Your task to perform on an android device: Search for logitech g910 on amazon.com, select the first entry, add it to the cart, then select checkout. Image 0: 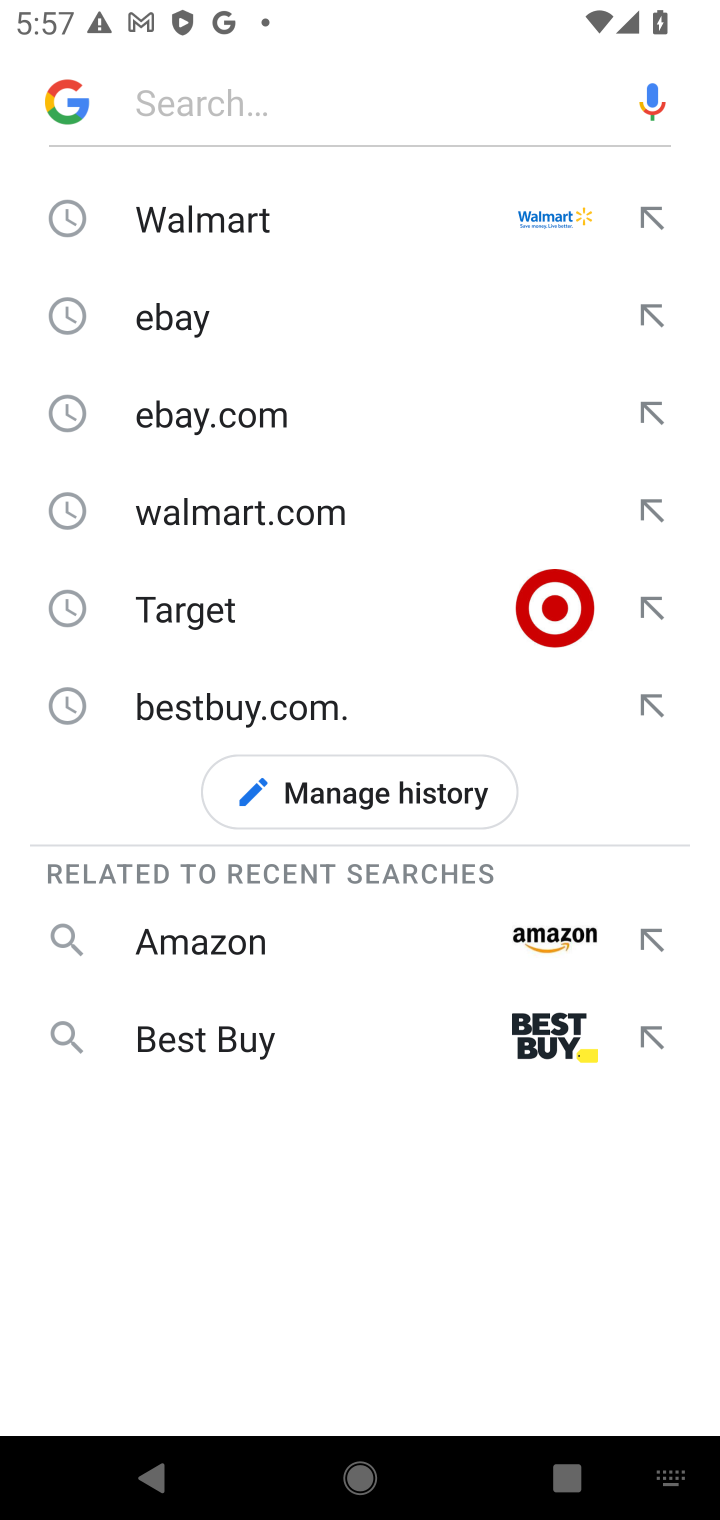
Step 0: press home button
Your task to perform on an android device: Search for logitech g910 on amazon.com, select the first entry, add it to the cart, then select checkout. Image 1: 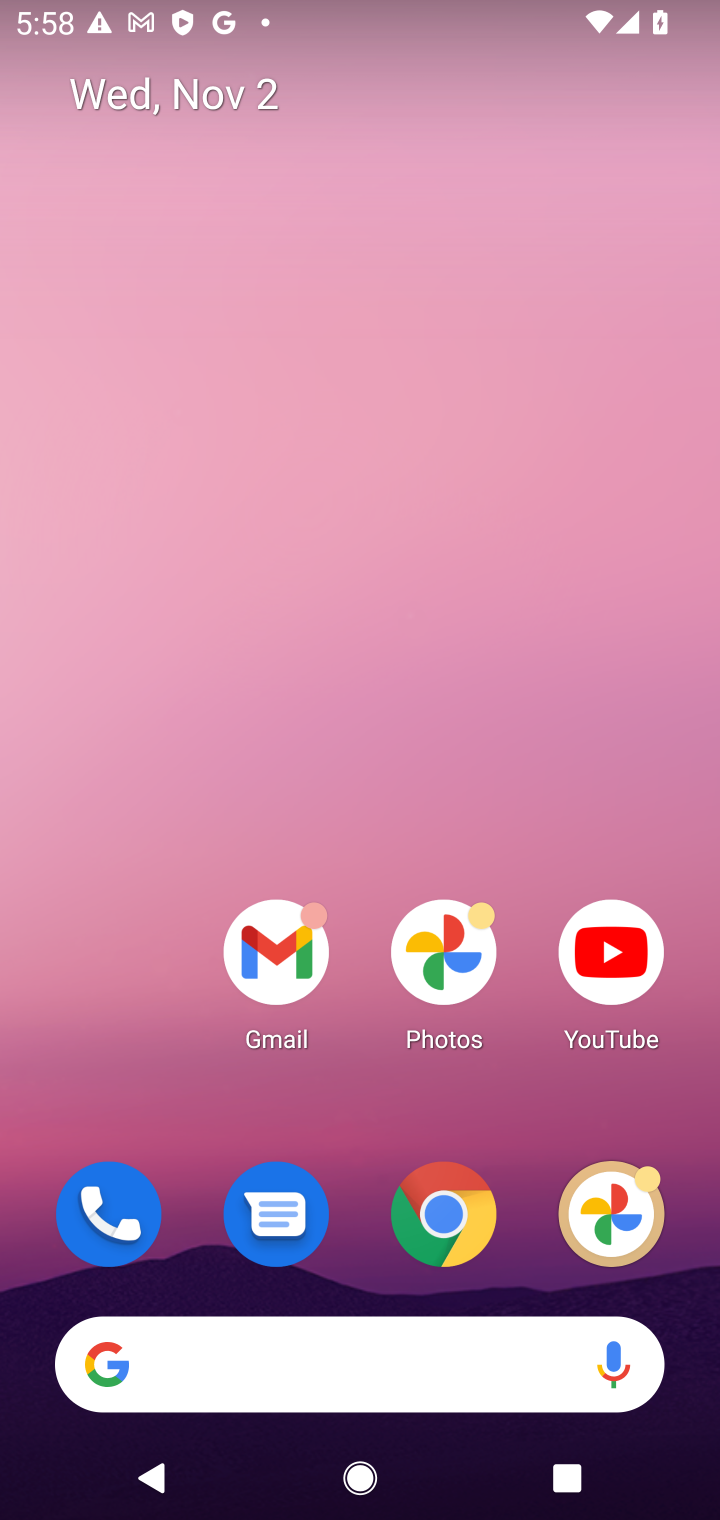
Step 1: click (446, 1213)
Your task to perform on an android device: Search for logitech g910 on amazon.com, select the first entry, add it to the cart, then select checkout. Image 2: 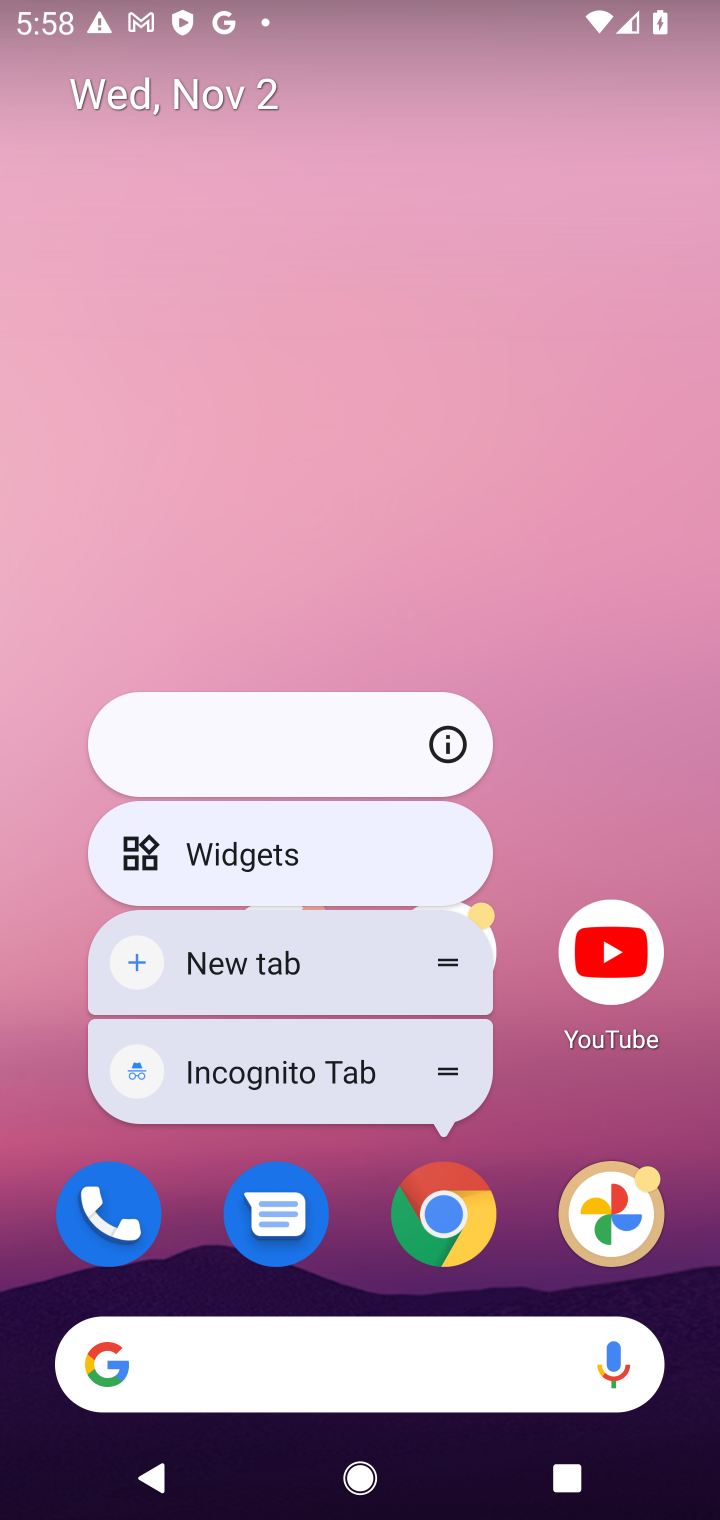
Step 2: click (444, 1219)
Your task to perform on an android device: Search for logitech g910 on amazon.com, select the first entry, add it to the cart, then select checkout. Image 3: 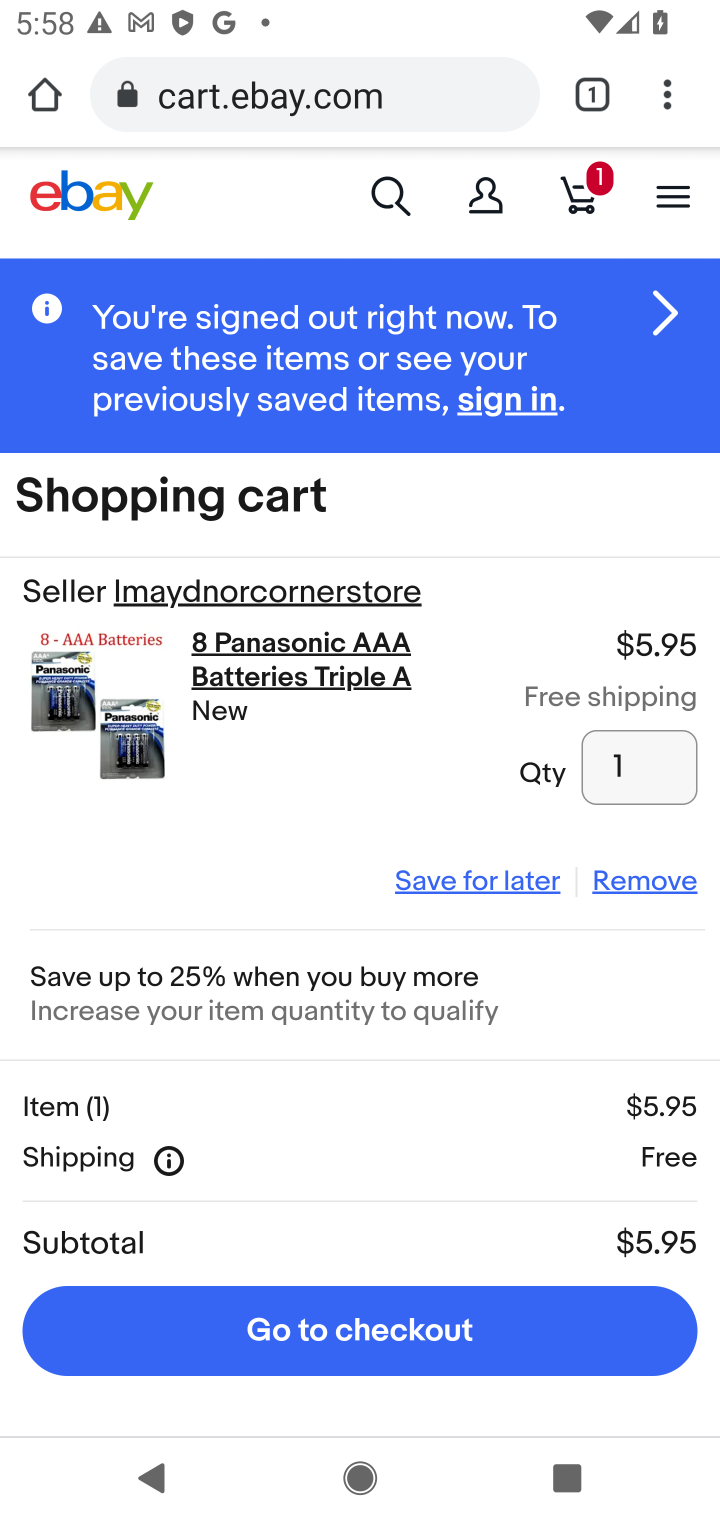
Step 3: click (443, 94)
Your task to perform on an android device: Search for logitech g910 on amazon.com, select the first entry, add it to the cart, then select checkout. Image 4: 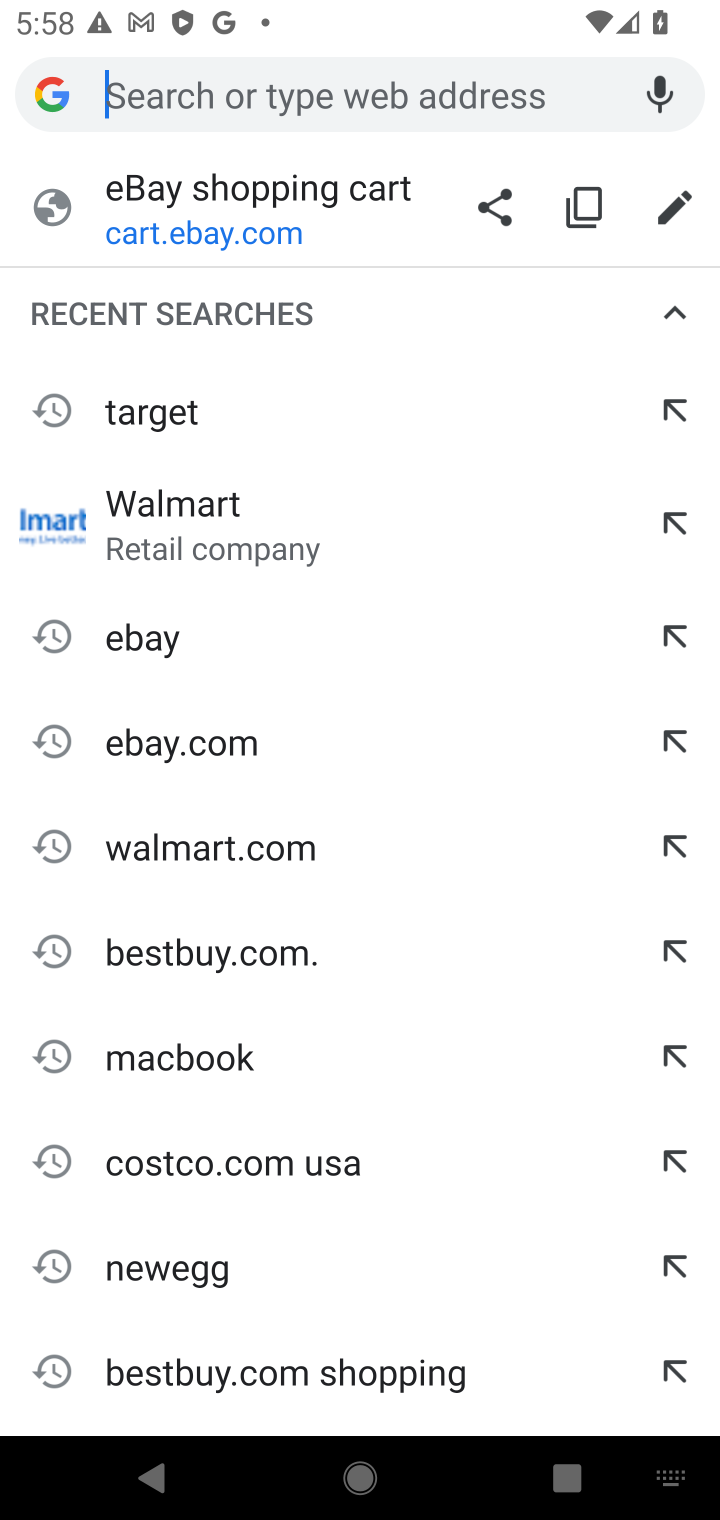
Step 4: type "amazon.com"
Your task to perform on an android device: Search for logitech g910 on amazon.com, select the first entry, add it to the cart, then select checkout. Image 5: 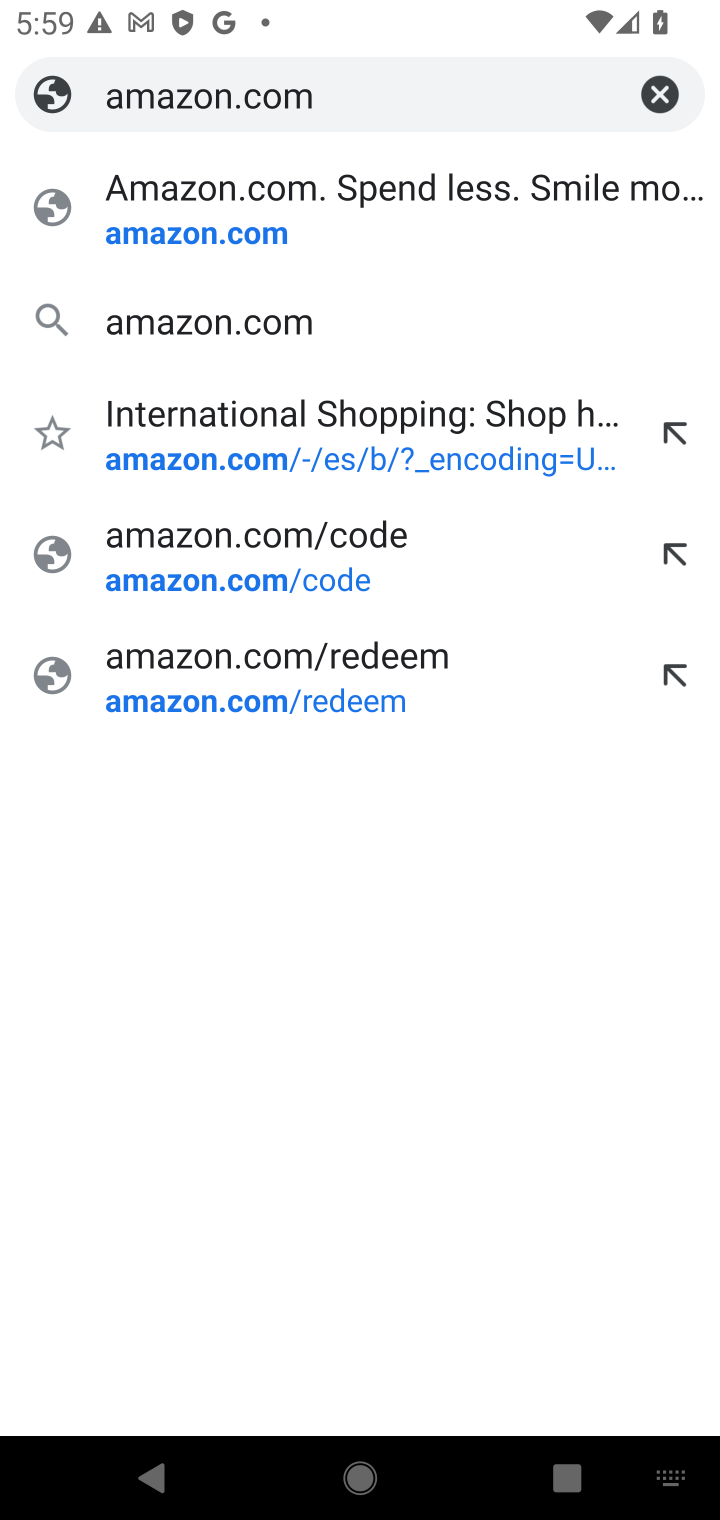
Step 5: click (224, 244)
Your task to perform on an android device: Search for logitech g910 on amazon.com, select the first entry, add it to the cart, then select checkout. Image 6: 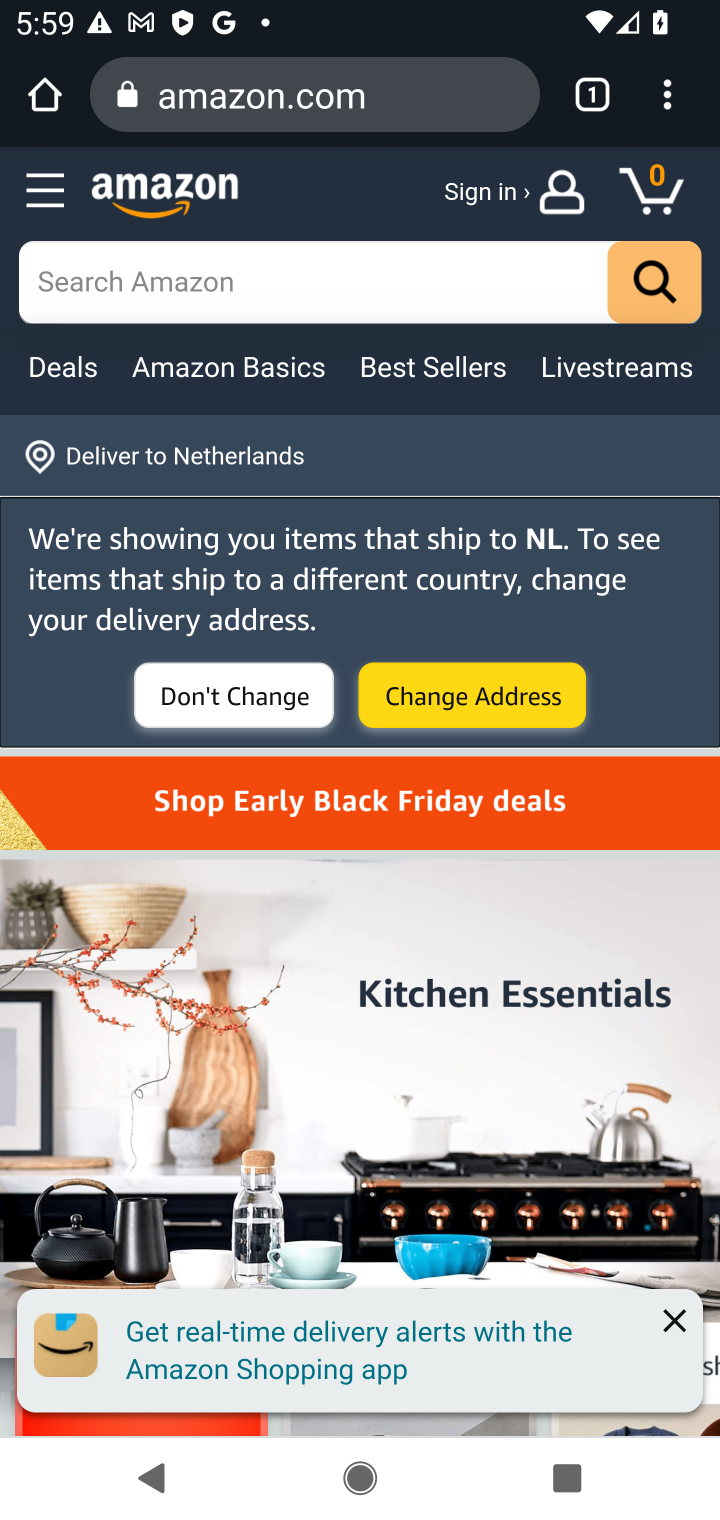
Step 6: click (212, 281)
Your task to perform on an android device: Search for logitech g910 on amazon.com, select the first entry, add it to the cart, then select checkout. Image 7: 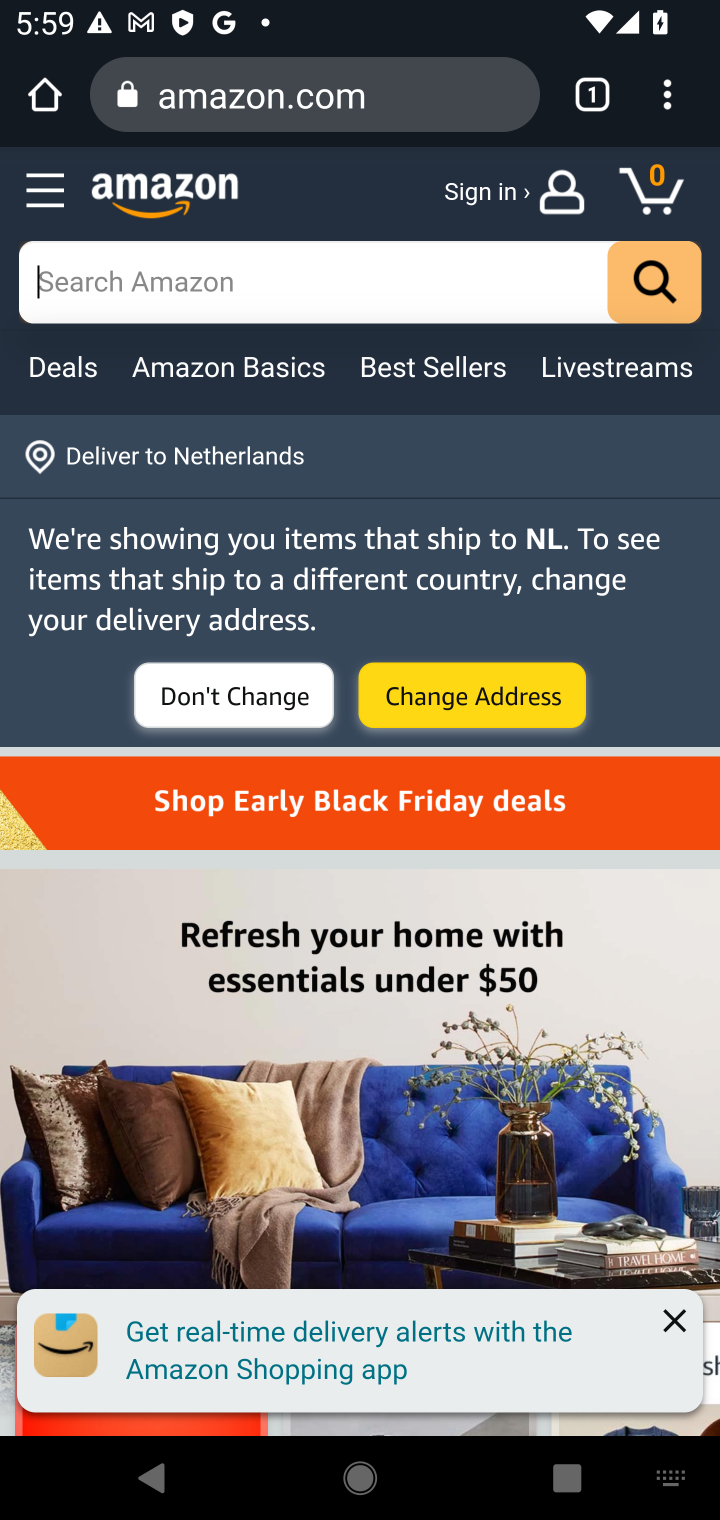
Step 7: type "logitech g910"
Your task to perform on an android device: Search for logitech g910 on amazon.com, select the first entry, add it to the cart, then select checkout. Image 8: 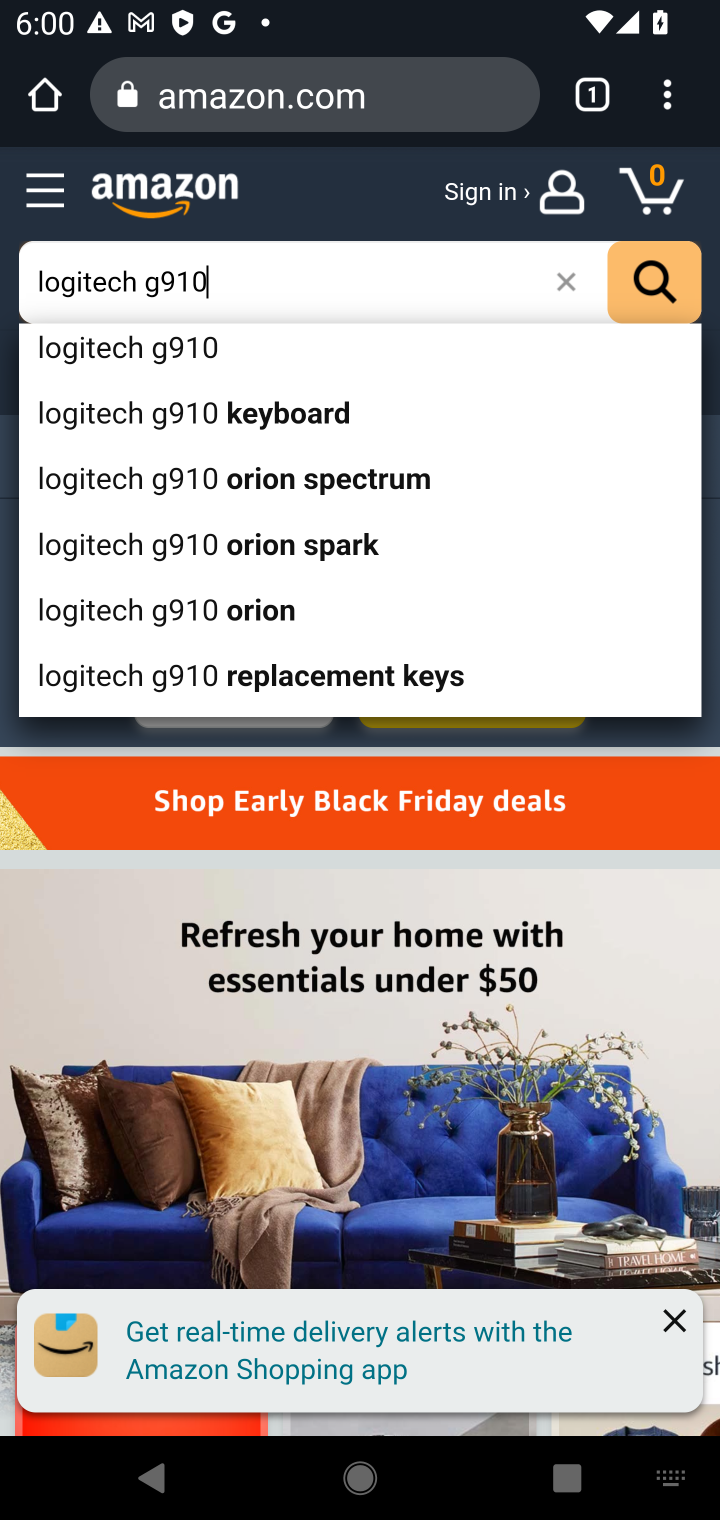
Step 8: click (652, 279)
Your task to perform on an android device: Search for logitech g910 on amazon.com, select the first entry, add it to the cart, then select checkout. Image 9: 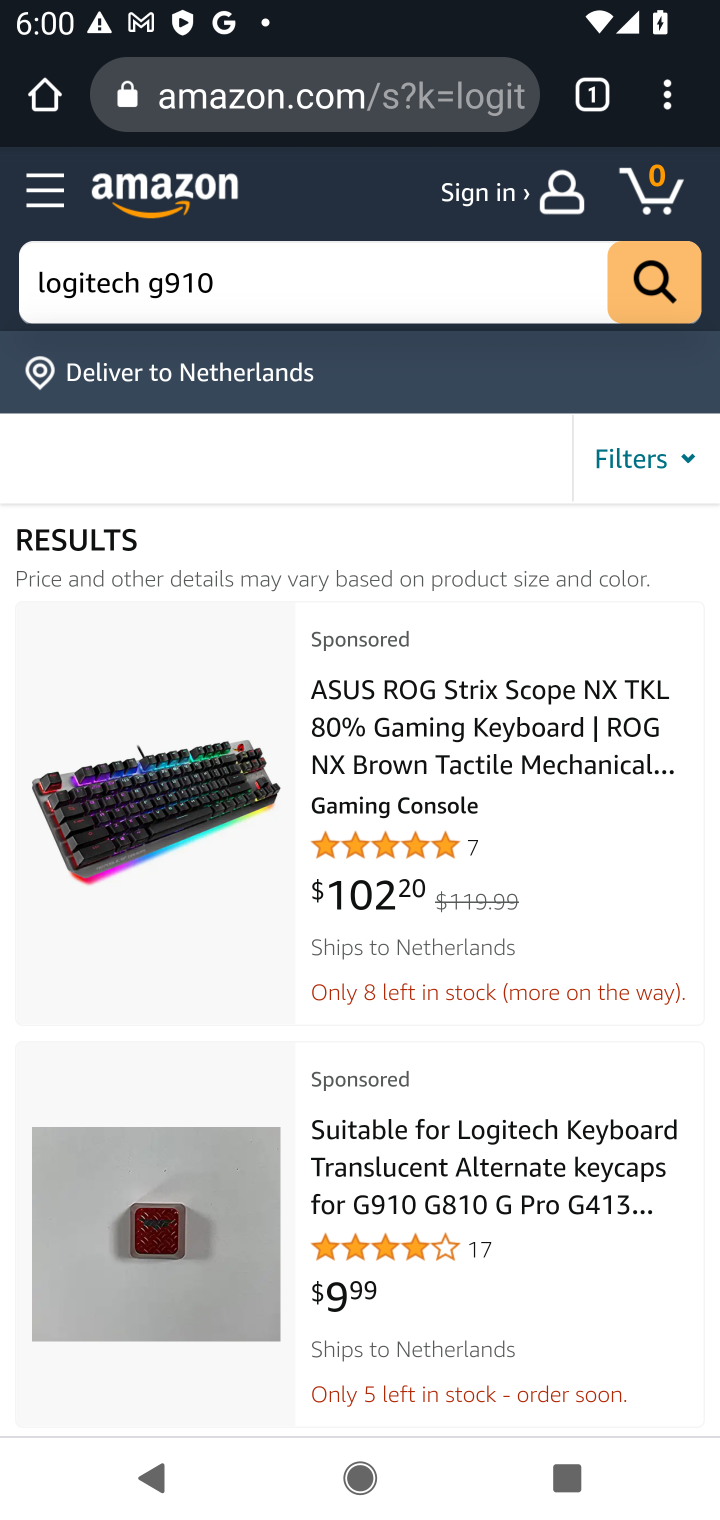
Step 9: click (667, 290)
Your task to perform on an android device: Search for logitech g910 on amazon.com, select the first entry, add it to the cart, then select checkout. Image 10: 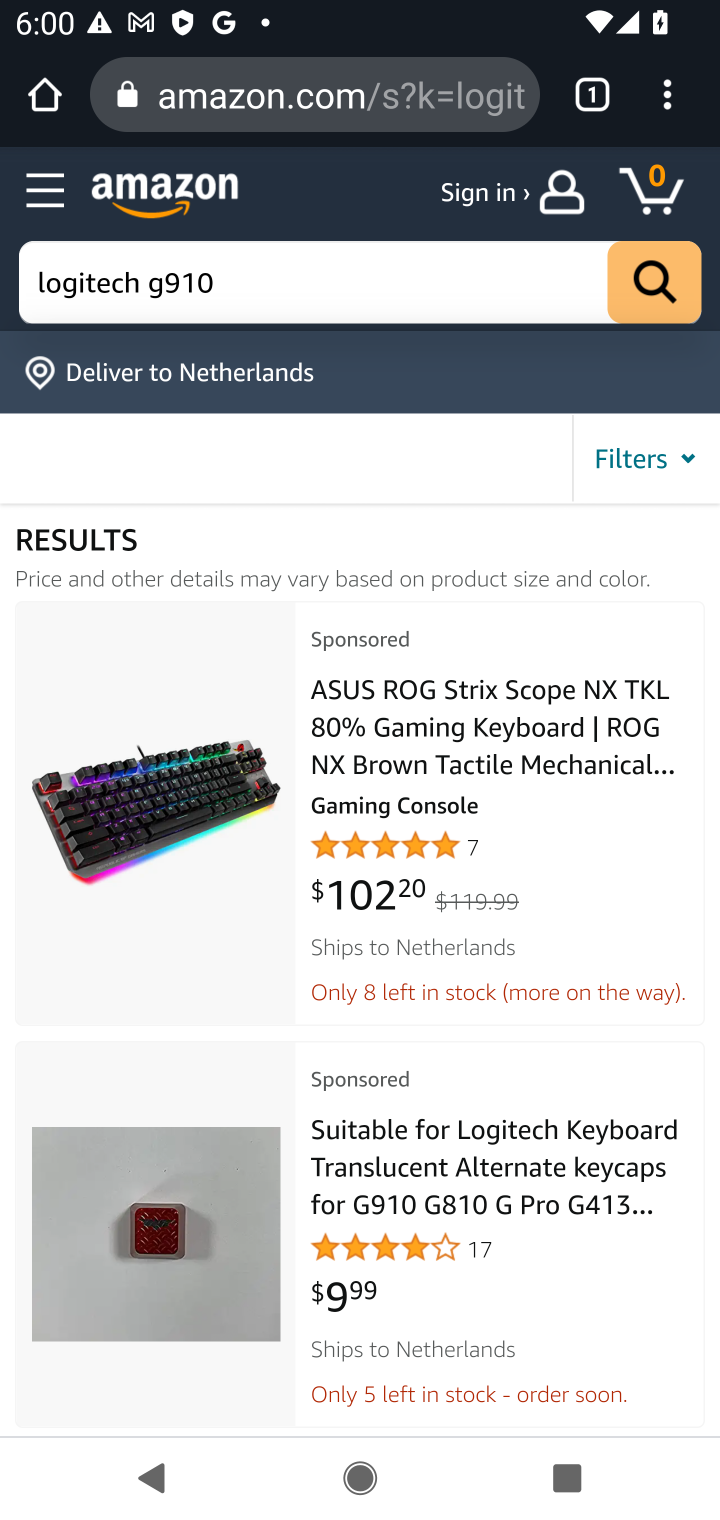
Step 10: drag from (501, 1224) to (521, 641)
Your task to perform on an android device: Search for logitech g910 on amazon.com, select the first entry, add it to the cart, then select checkout. Image 11: 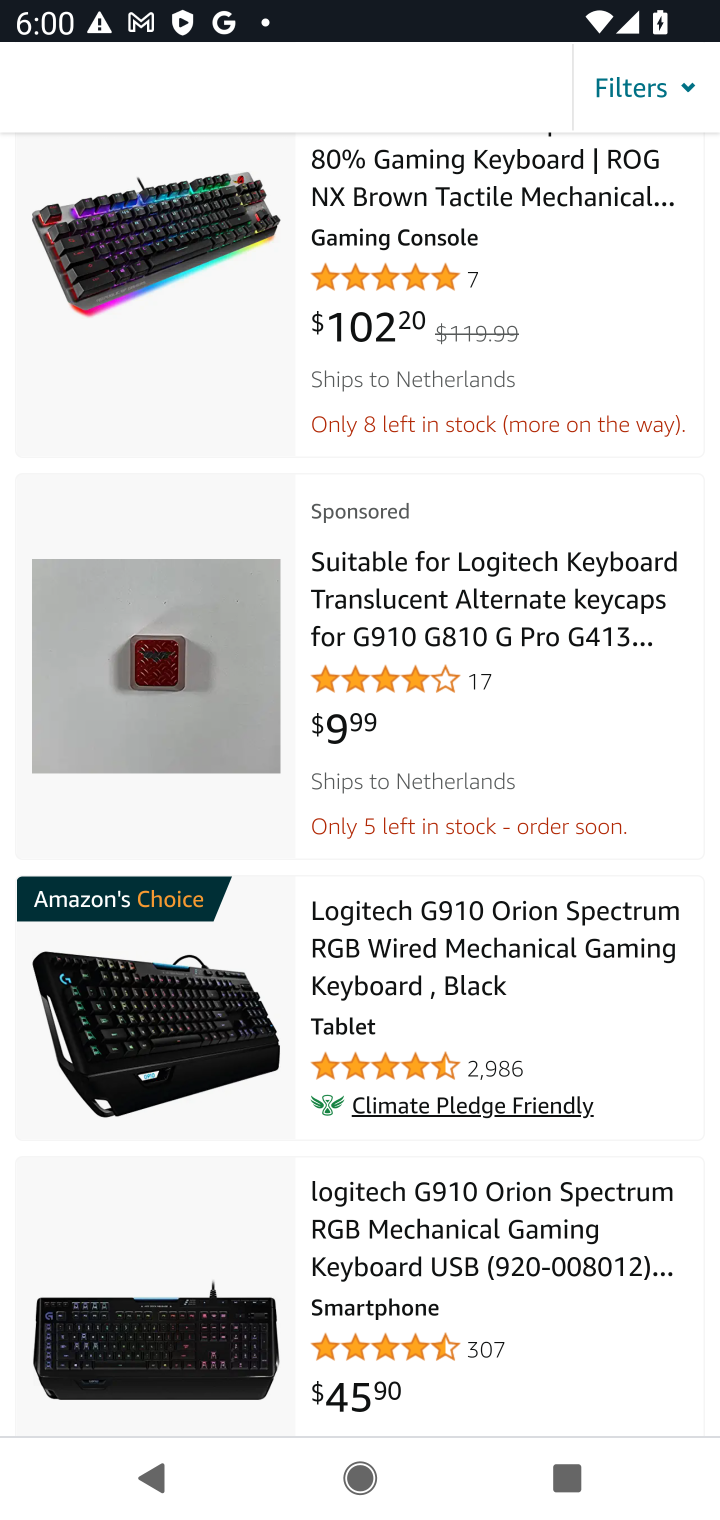
Step 11: click (497, 930)
Your task to perform on an android device: Search for logitech g910 on amazon.com, select the first entry, add it to the cart, then select checkout. Image 12: 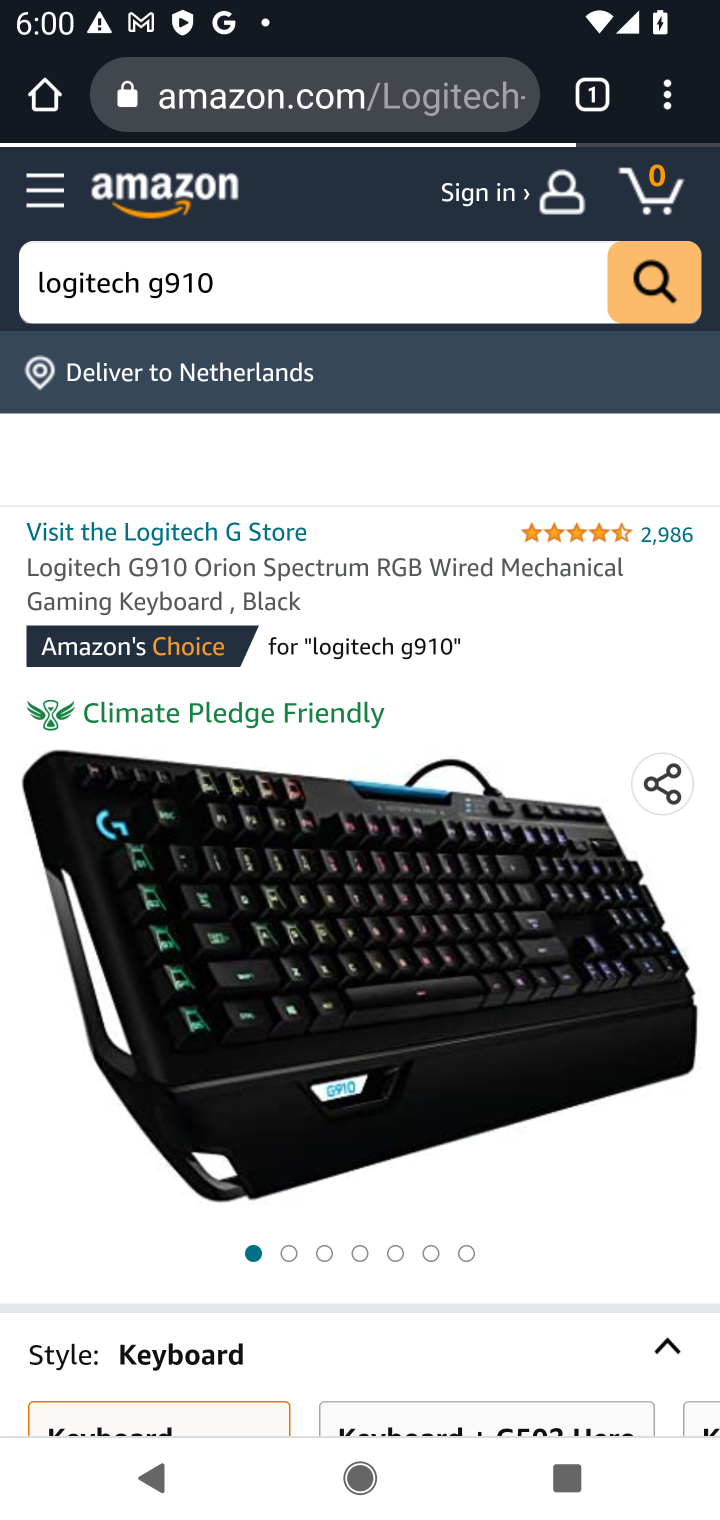
Step 12: drag from (477, 989) to (502, 662)
Your task to perform on an android device: Search for logitech g910 on amazon.com, select the first entry, add it to the cart, then select checkout. Image 13: 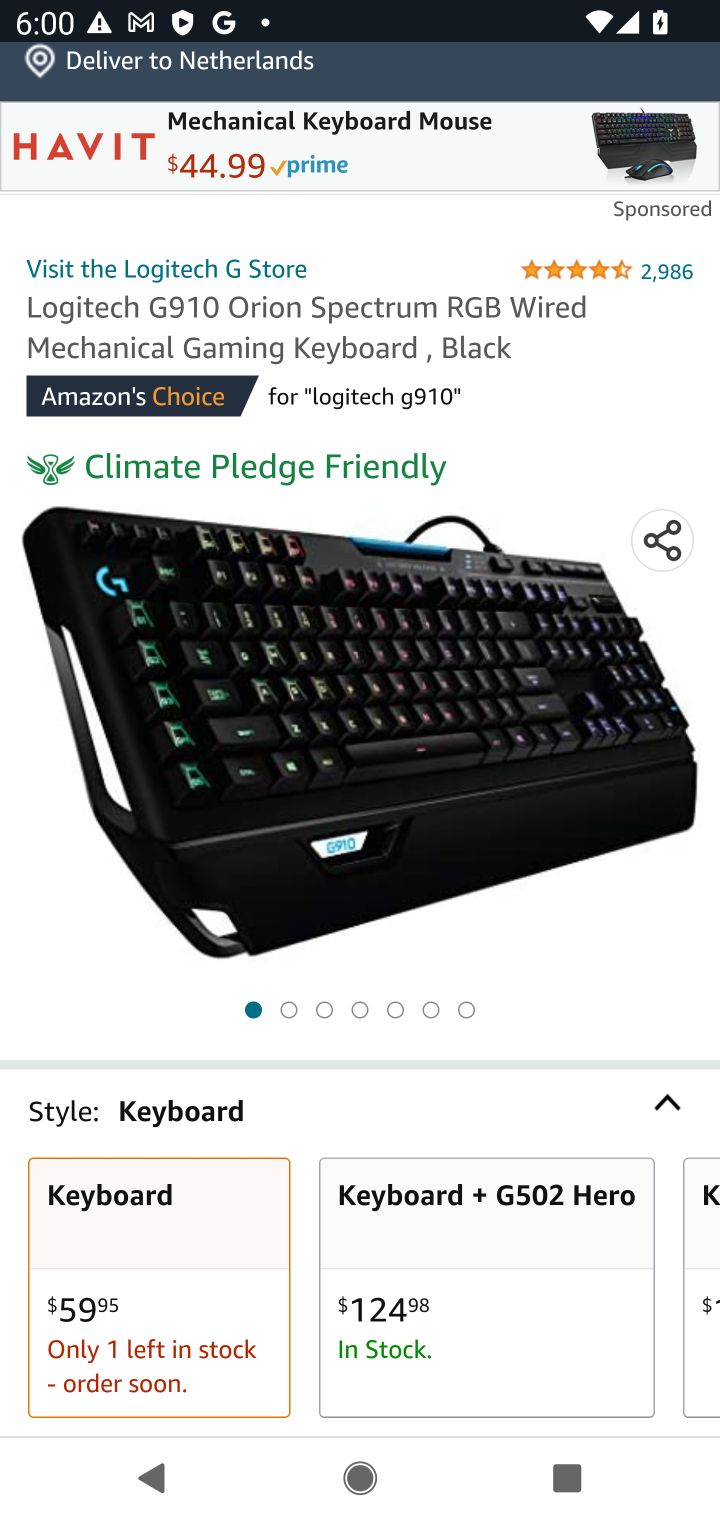
Step 13: drag from (535, 994) to (546, 474)
Your task to perform on an android device: Search for logitech g910 on amazon.com, select the first entry, add it to the cart, then select checkout. Image 14: 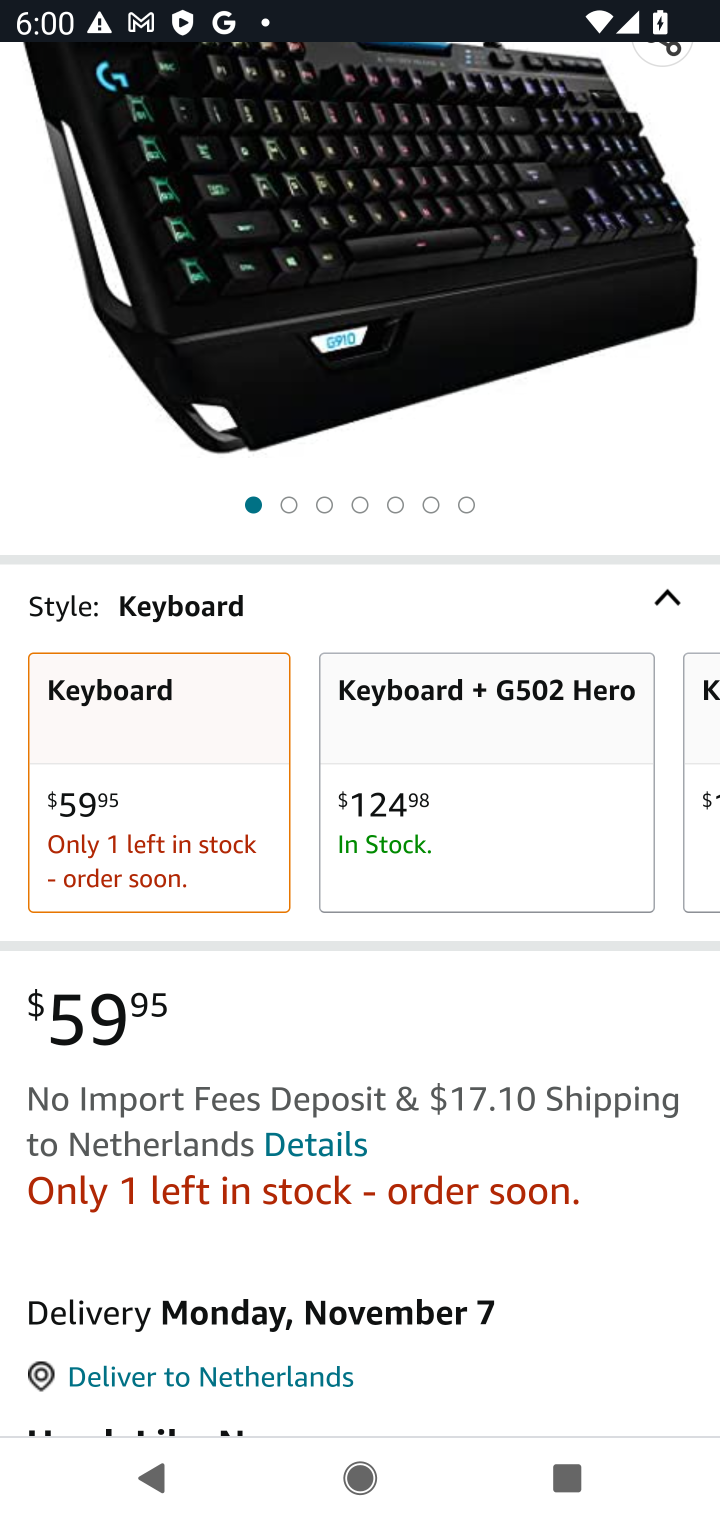
Step 14: drag from (366, 1233) to (471, 513)
Your task to perform on an android device: Search for logitech g910 on amazon.com, select the first entry, add it to the cart, then select checkout. Image 15: 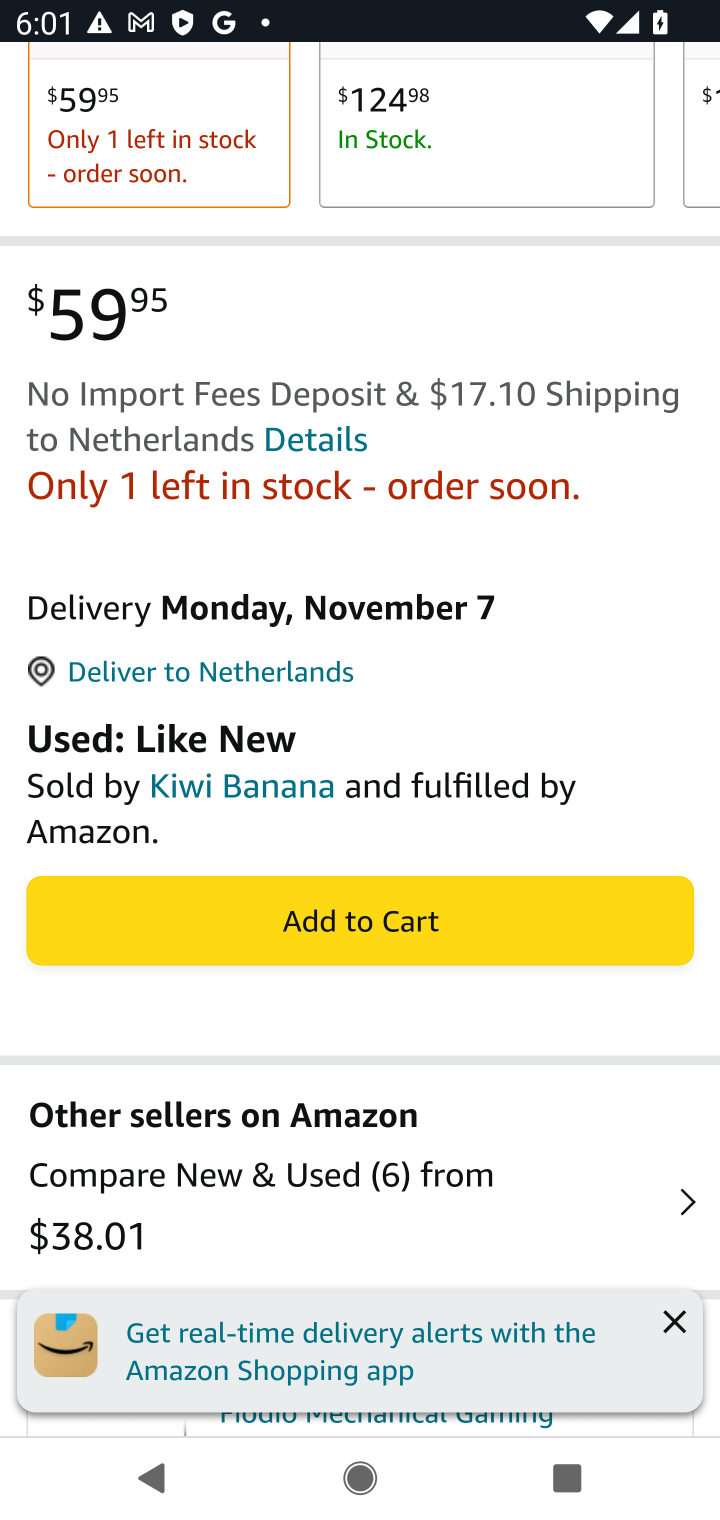
Step 15: click (358, 928)
Your task to perform on an android device: Search for logitech g910 on amazon.com, select the first entry, add it to the cart, then select checkout. Image 16: 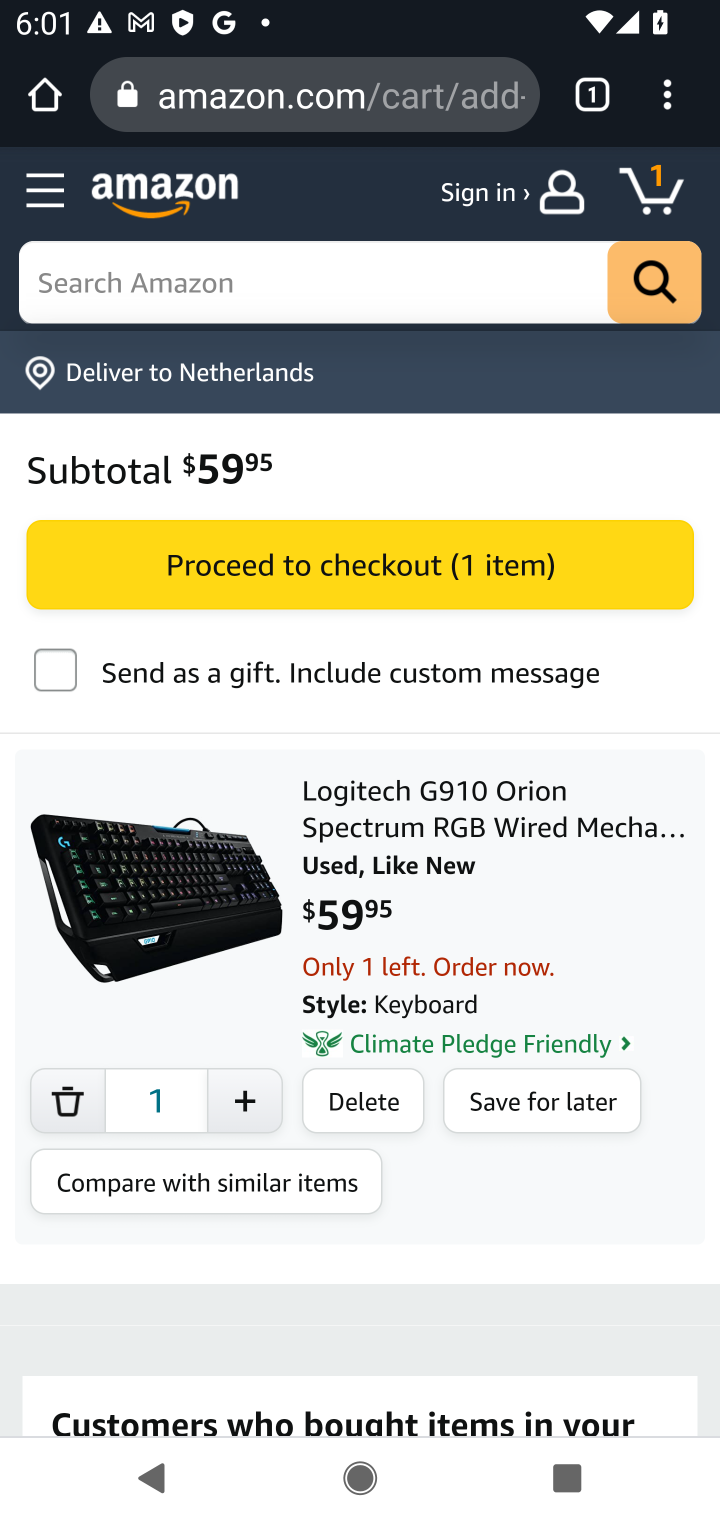
Step 16: click (655, 187)
Your task to perform on an android device: Search for logitech g910 on amazon.com, select the first entry, add it to the cart, then select checkout. Image 17: 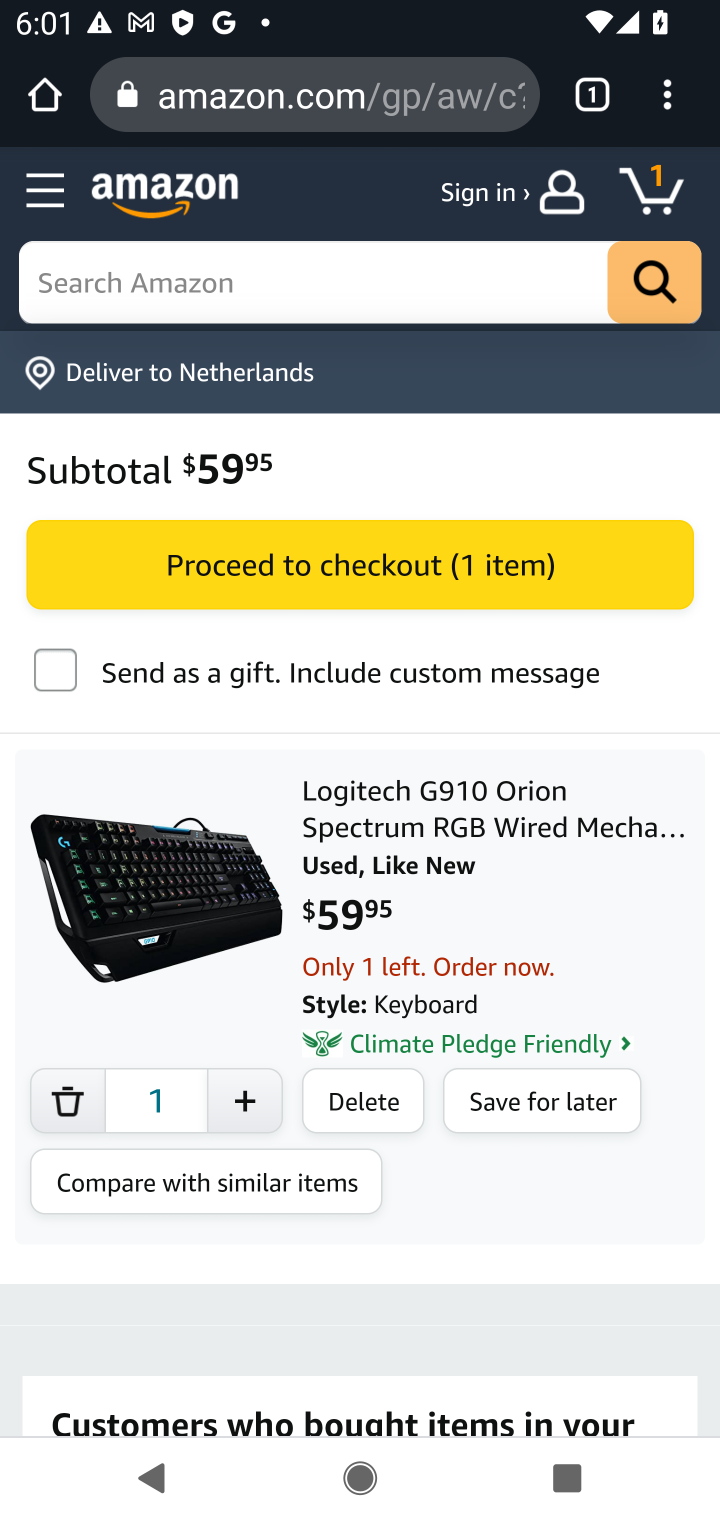
Step 17: click (383, 554)
Your task to perform on an android device: Search for logitech g910 on amazon.com, select the first entry, add it to the cart, then select checkout. Image 18: 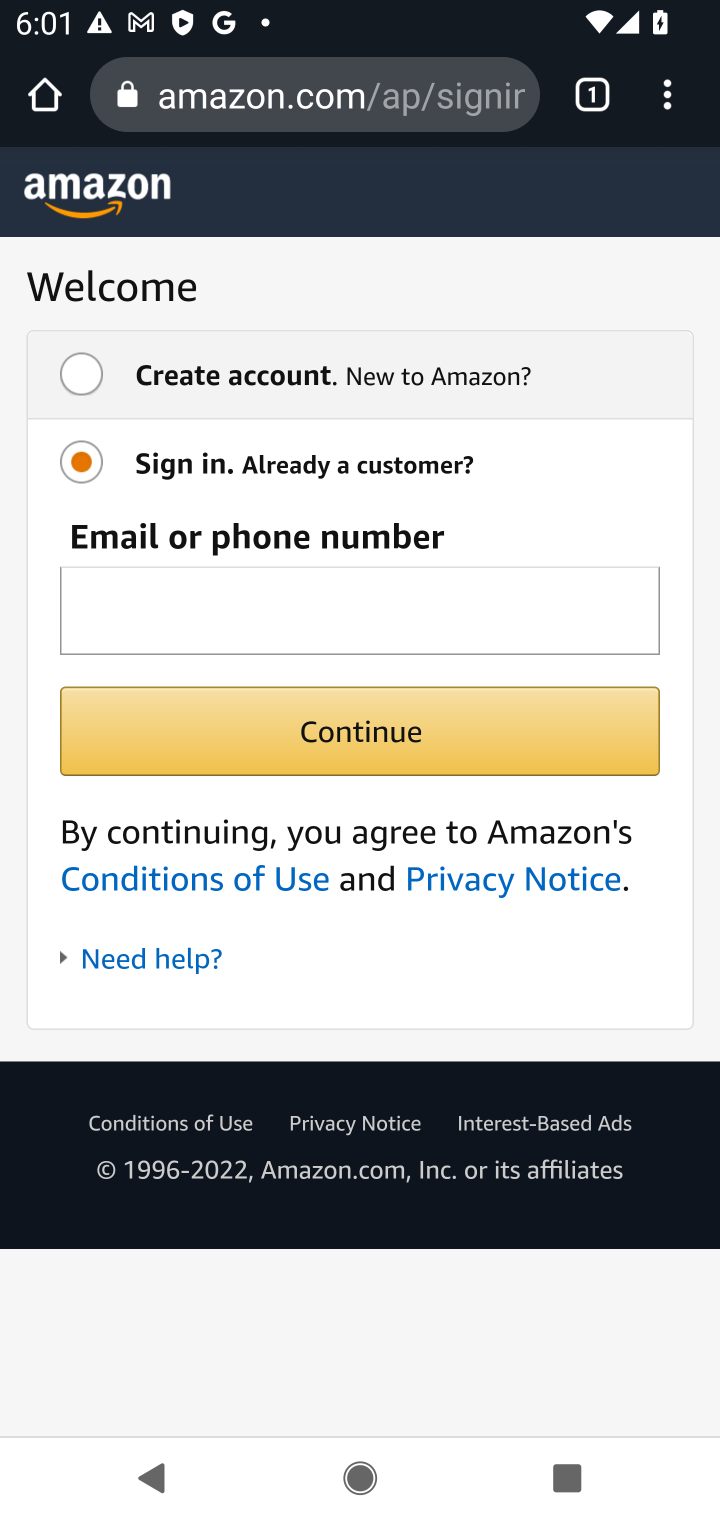
Step 18: task complete